Your task to perform on an android device: Open settings on Google Maps Image 0: 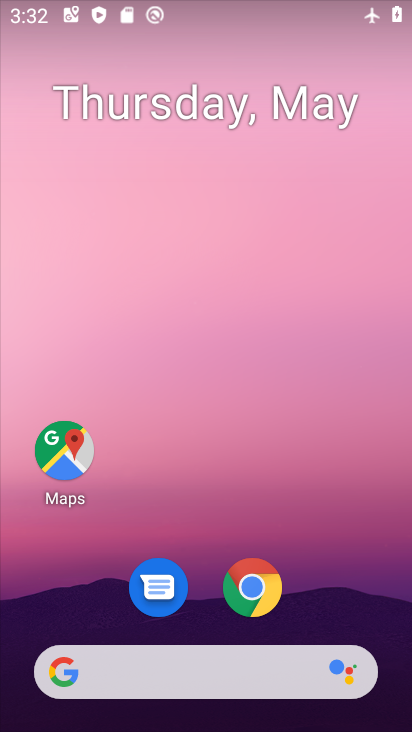
Step 0: drag from (234, 629) to (237, 264)
Your task to perform on an android device: Open settings on Google Maps Image 1: 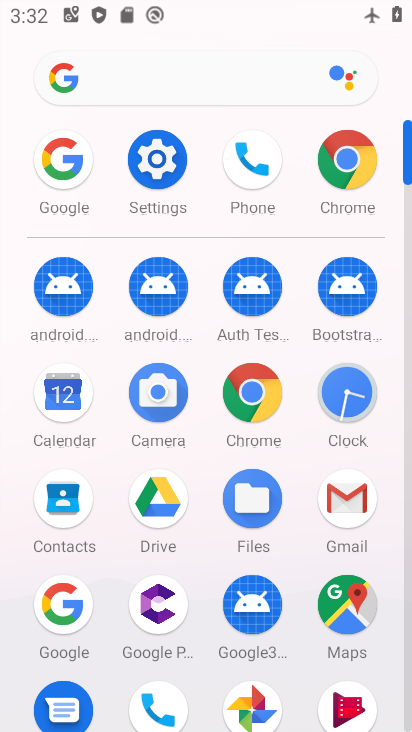
Step 1: click (340, 615)
Your task to perform on an android device: Open settings on Google Maps Image 2: 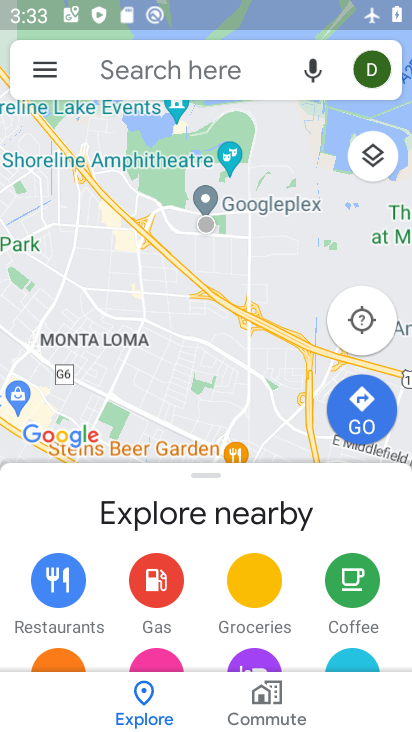
Step 2: click (51, 66)
Your task to perform on an android device: Open settings on Google Maps Image 3: 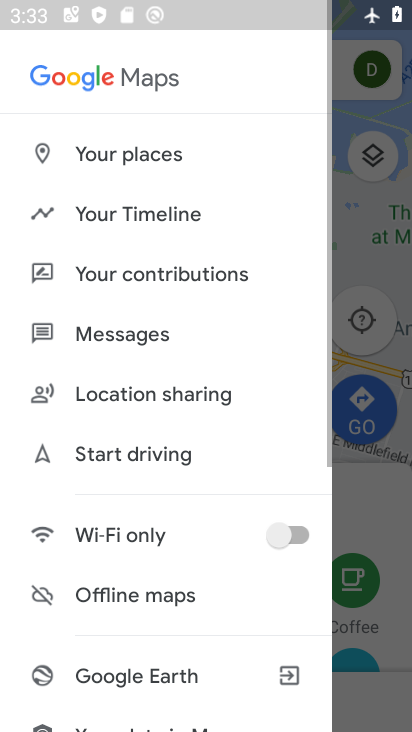
Step 3: drag from (151, 517) to (212, 154)
Your task to perform on an android device: Open settings on Google Maps Image 4: 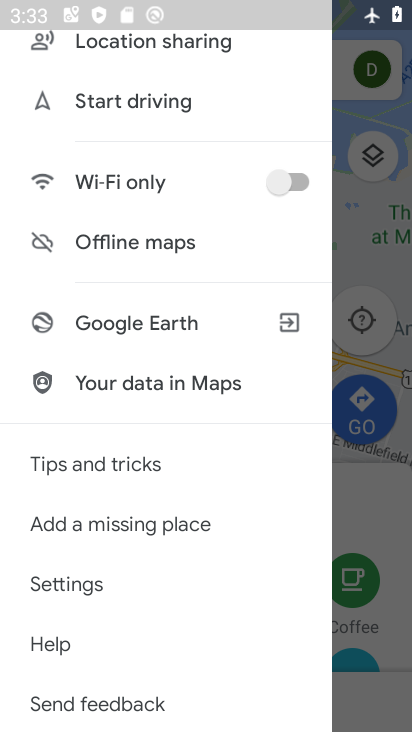
Step 4: click (81, 590)
Your task to perform on an android device: Open settings on Google Maps Image 5: 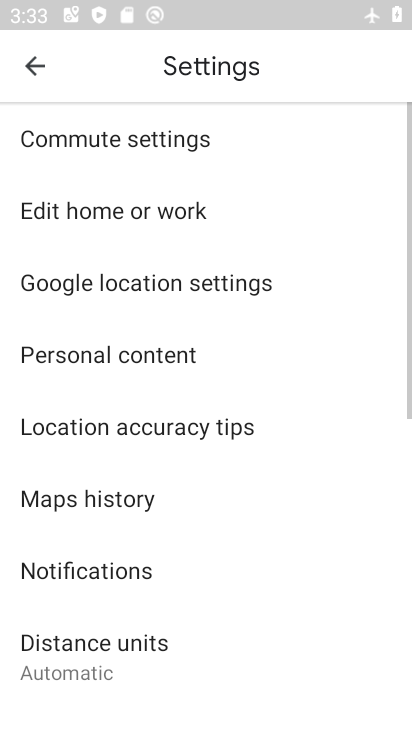
Step 5: task complete